Your task to perform on an android device: Turn off the flashlight Image 0: 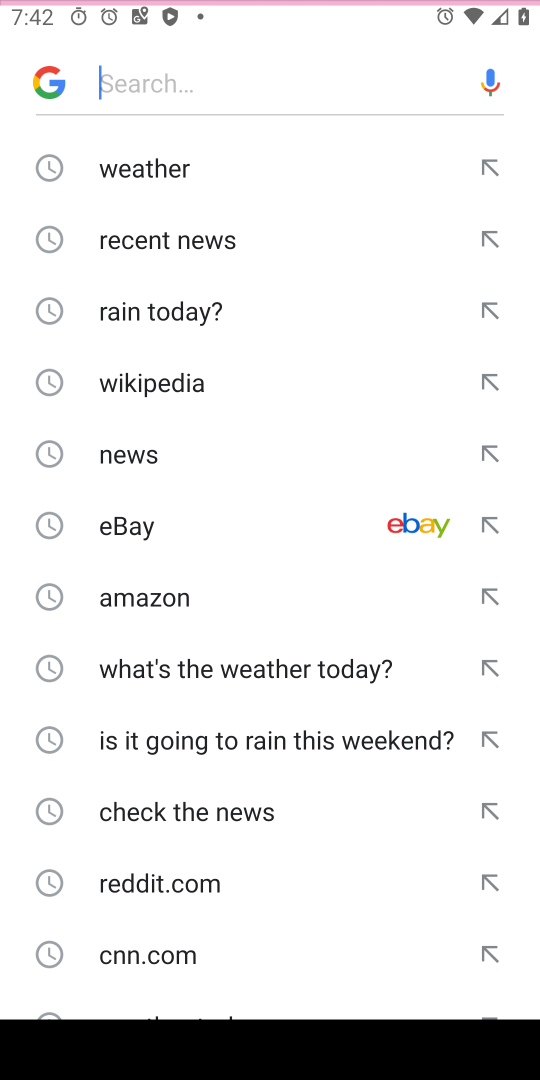
Step 0: press home button
Your task to perform on an android device: Turn off the flashlight Image 1: 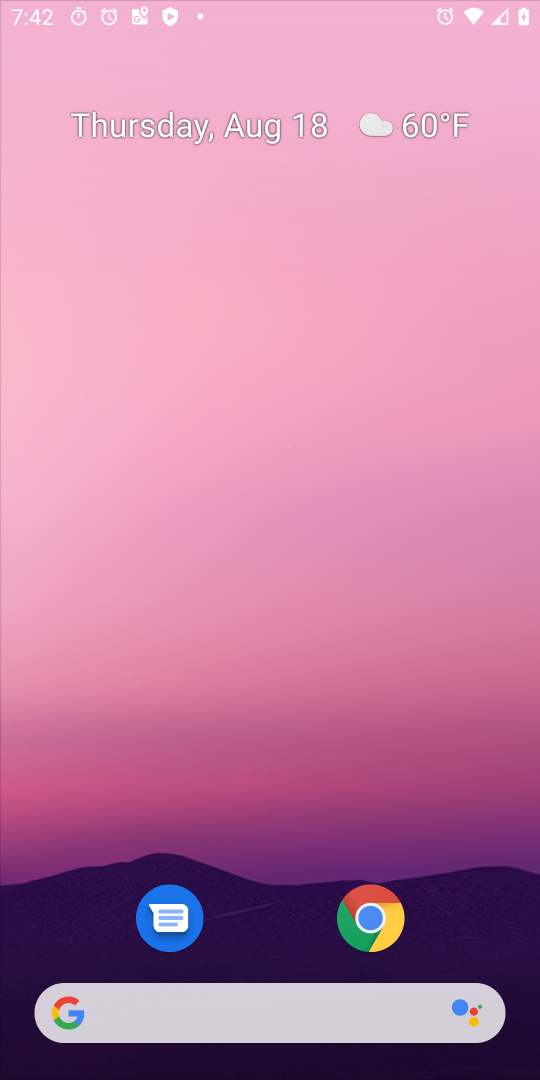
Step 1: task complete